Your task to perform on an android device: Open Amazon Image 0: 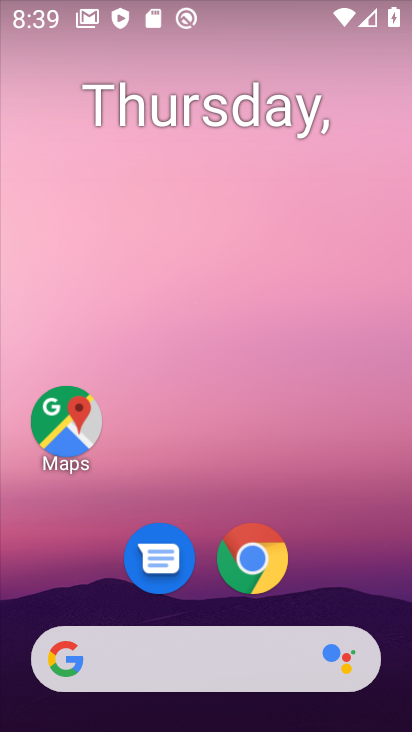
Step 0: click (256, 561)
Your task to perform on an android device: Open Amazon Image 1: 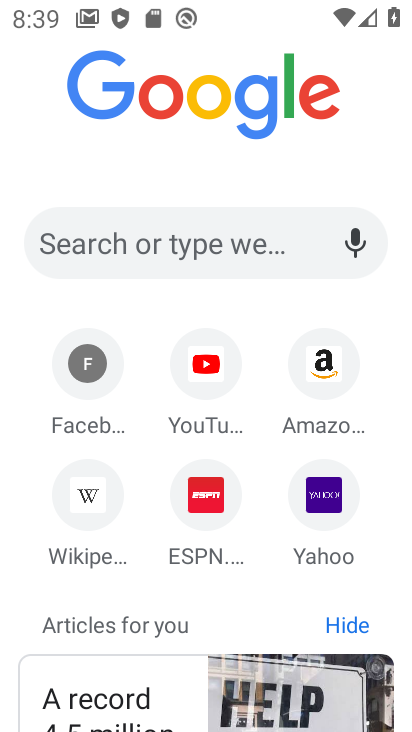
Step 1: click (320, 360)
Your task to perform on an android device: Open Amazon Image 2: 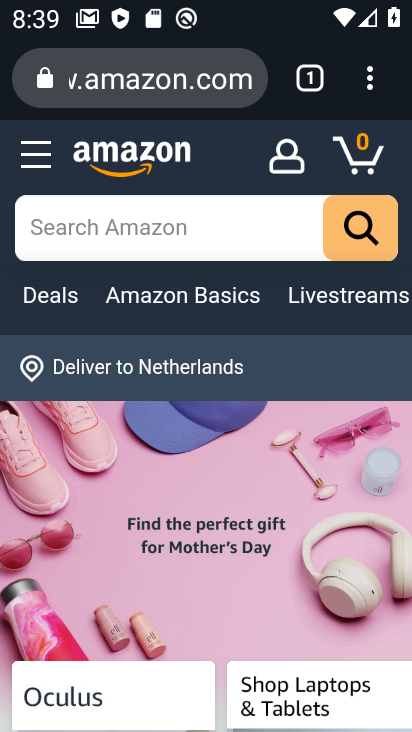
Step 2: task complete